Your task to perform on an android device: check battery use Image 0: 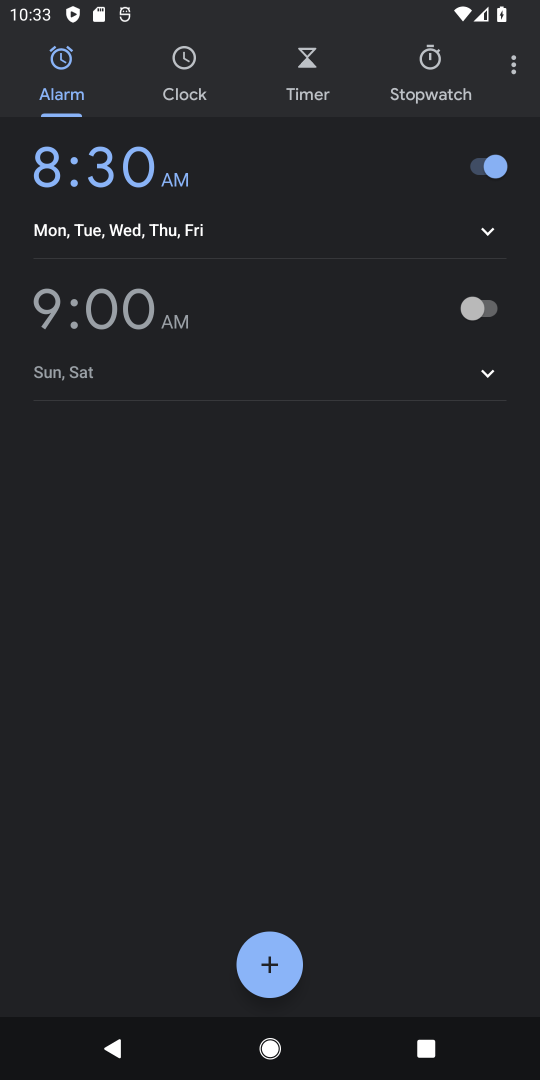
Step 0: press home button
Your task to perform on an android device: check battery use Image 1: 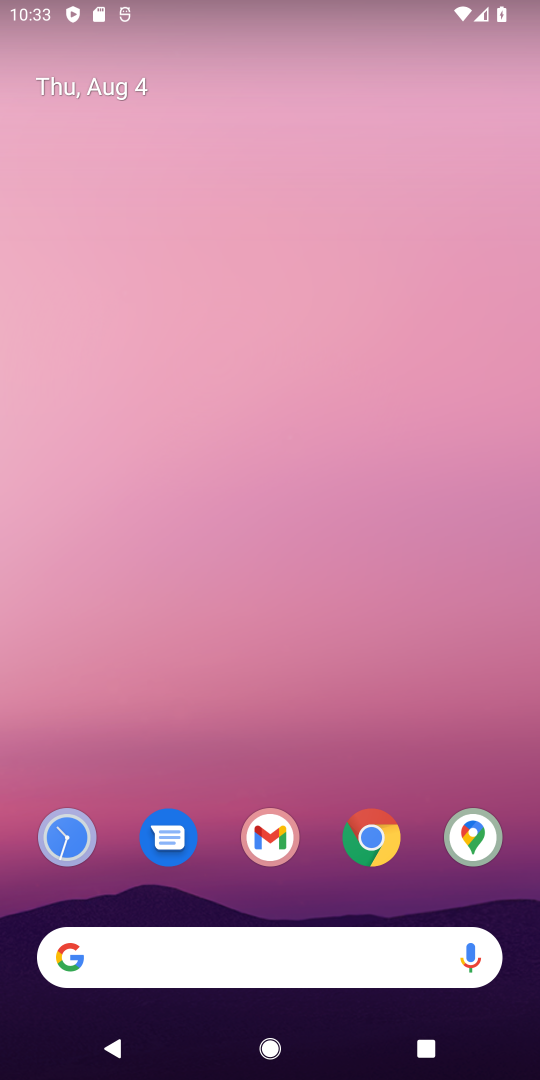
Step 1: drag from (441, 878) to (281, 82)
Your task to perform on an android device: check battery use Image 2: 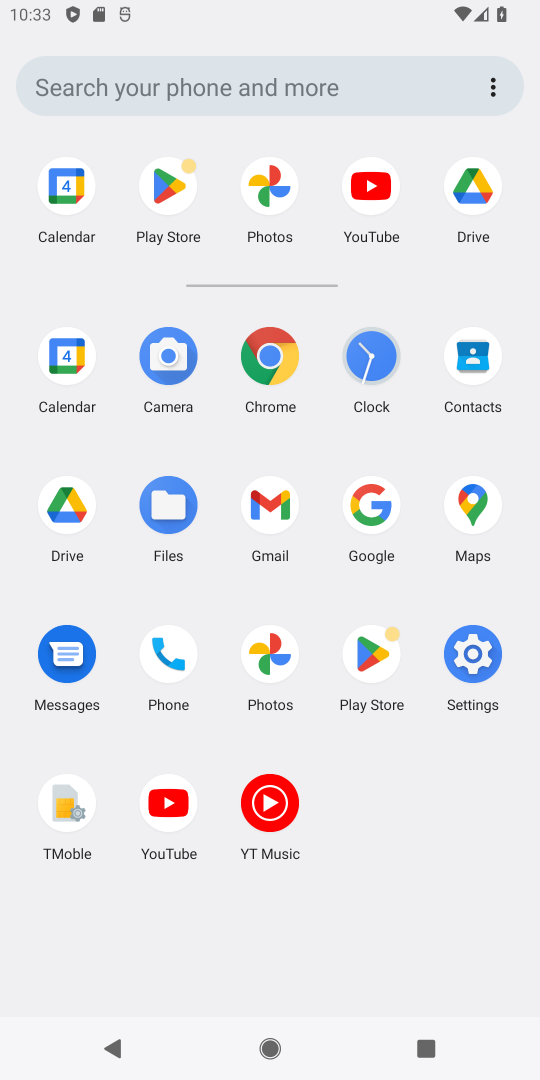
Step 2: click (459, 684)
Your task to perform on an android device: check battery use Image 3: 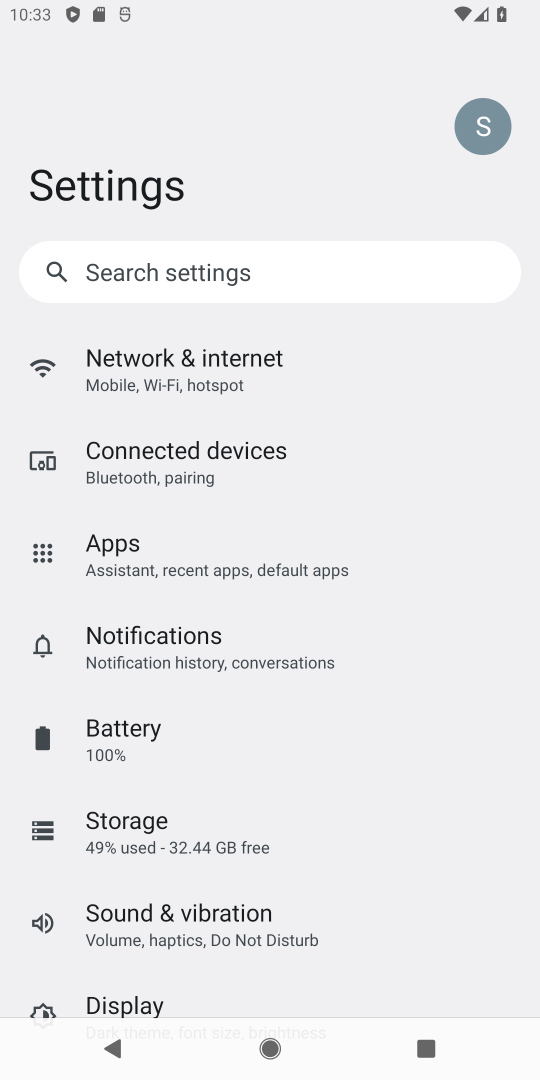
Step 3: click (156, 738)
Your task to perform on an android device: check battery use Image 4: 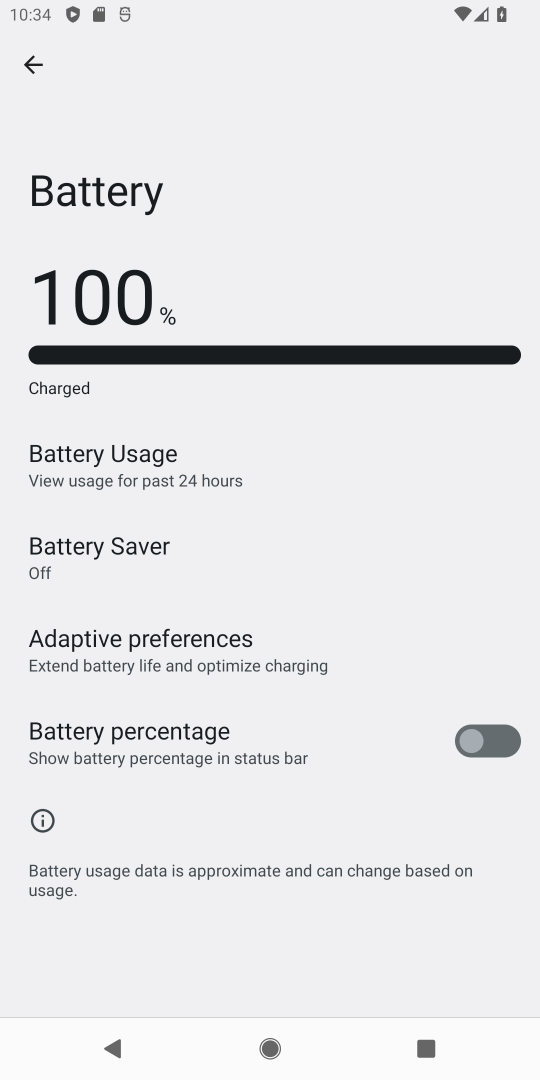
Step 4: click (93, 447)
Your task to perform on an android device: check battery use Image 5: 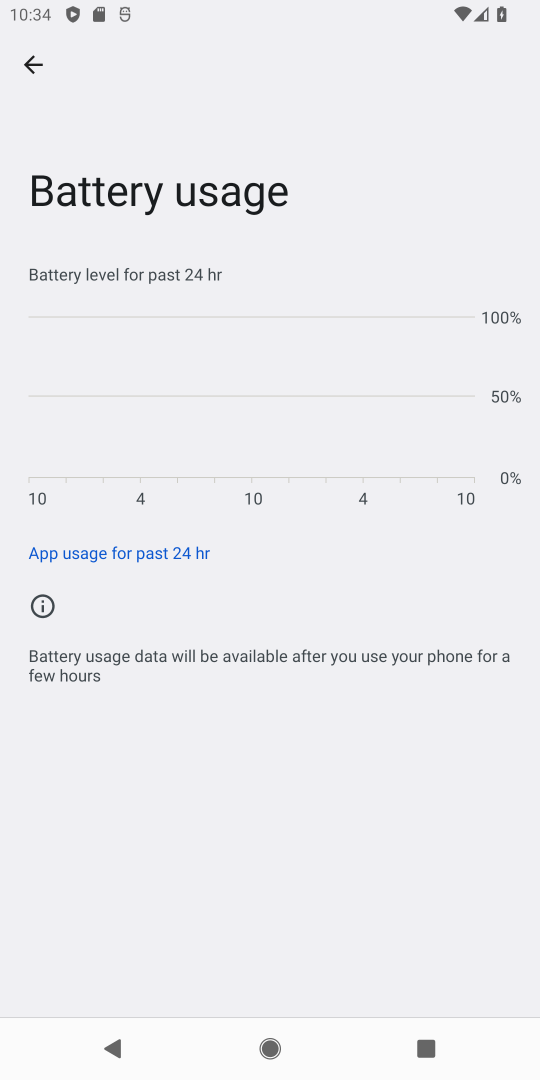
Step 5: task complete